Your task to perform on an android device: all mails in gmail Image 0: 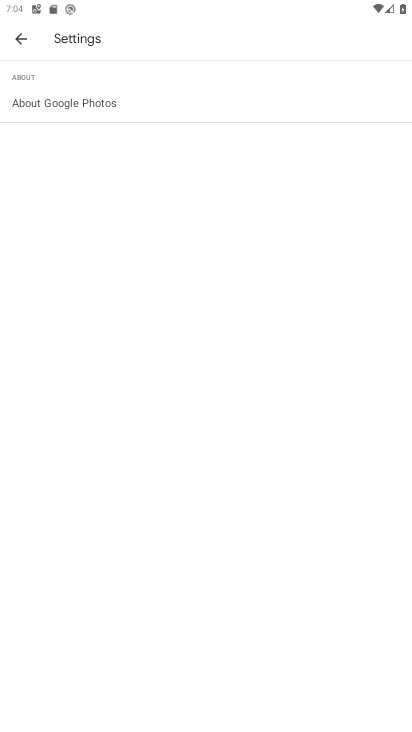
Step 0: press home button
Your task to perform on an android device: all mails in gmail Image 1: 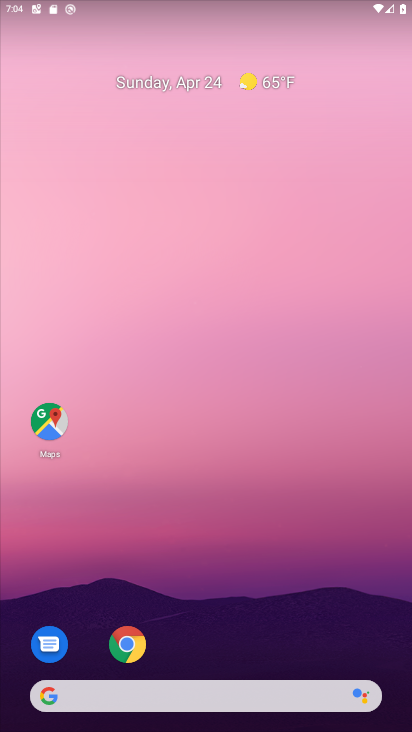
Step 1: drag from (206, 664) to (251, 28)
Your task to perform on an android device: all mails in gmail Image 2: 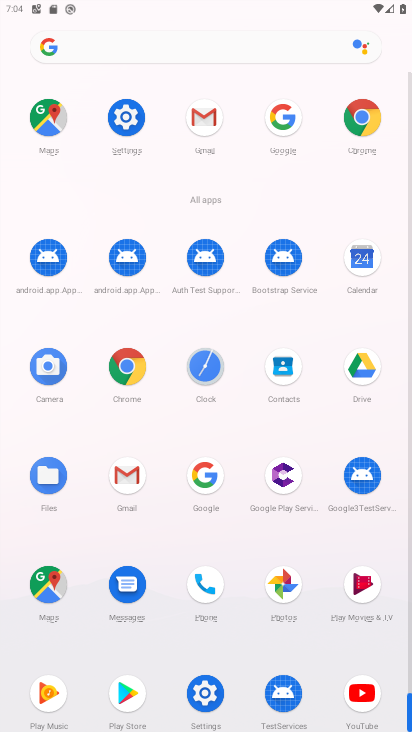
Step 2: click (128, 469)
Your task to perform on an android device: all mails in gmail Image 3: 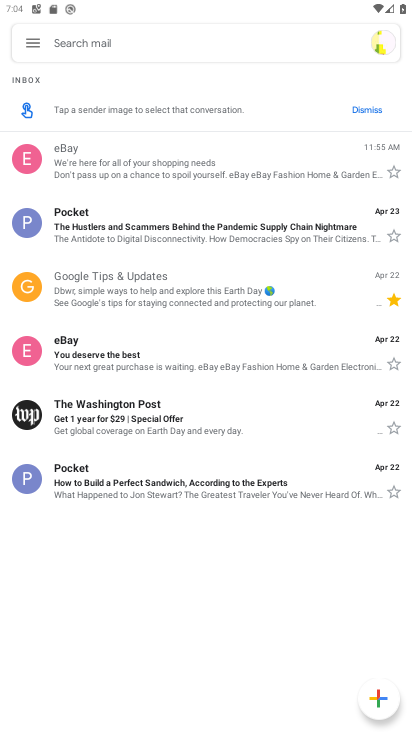
Step 3: click (22, 45)
Your task to perform on an android device: all mails in gmail Image 4: 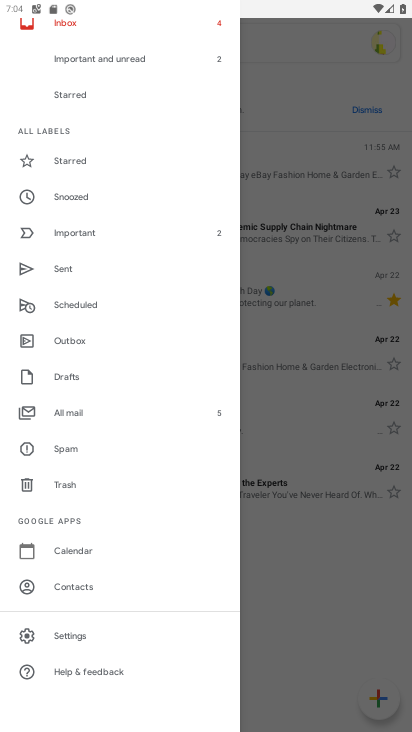
Step 4: click (93, 407)
Your task to perform on an android device: all mails in gmail Image 5: 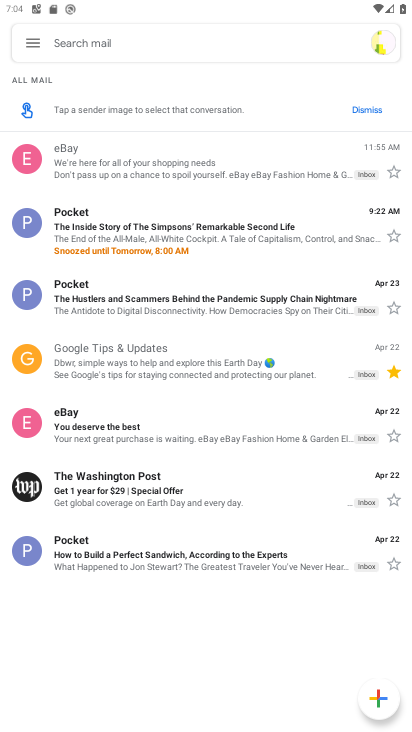
Step 5: task complete